Your task to perform on an android device: toggle improve location accuracy Image 0: 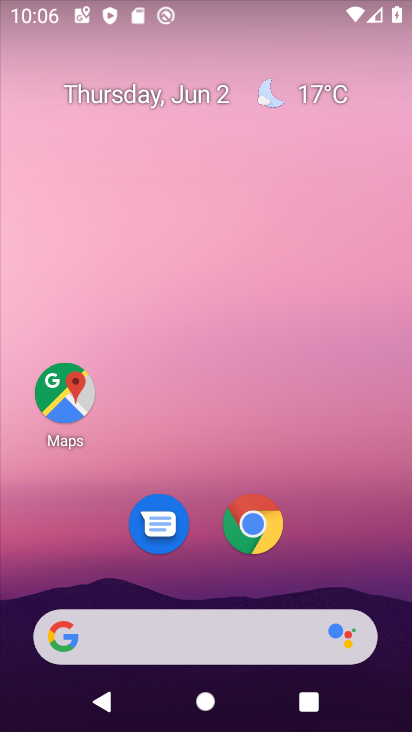
Step 0: drag from (237, 450) to (235, 0)
Your task to perform on an android device: toggle improve location accuracy Image 1: 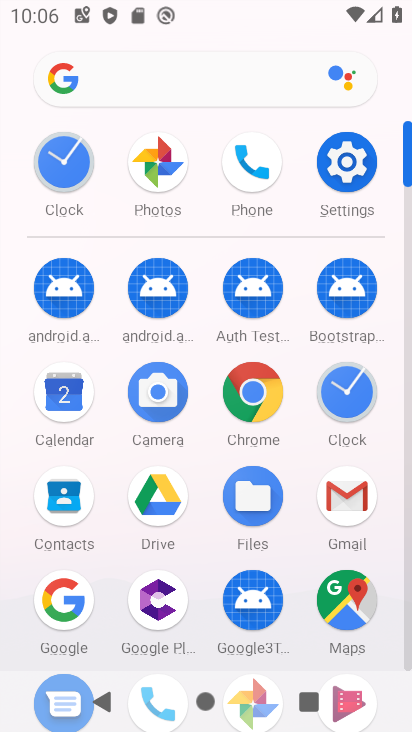
Step 1: click (355, 159)
Your task to perform on an android device: toggle improve location accuracy Image 2: 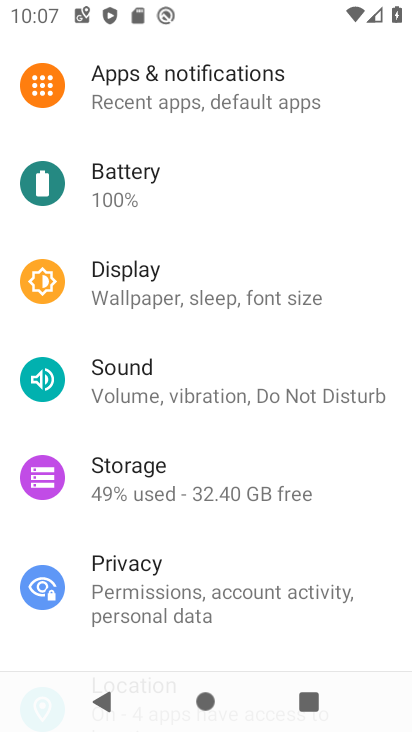
Step 2: drag from (252, 460) to (244, 130)
Your task to perform on an android device: toggle improve location accuracy Image 3: 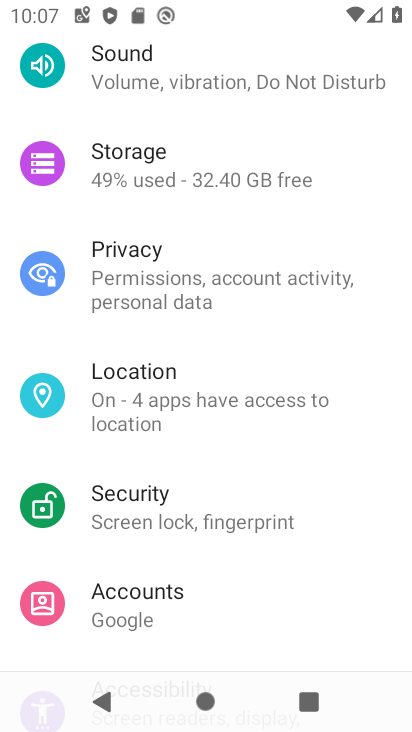
Step 3: click (220, 384)
Your task to perform on an android device: toggle improve location accuracy Image 4: 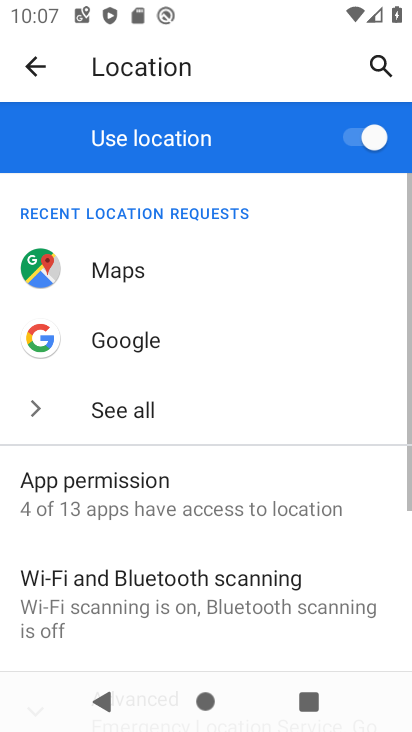
Step 4: drag from (268, 520) to (257, 80)
Your task to perform on an android device: toggle improve location accuracy Image 5: 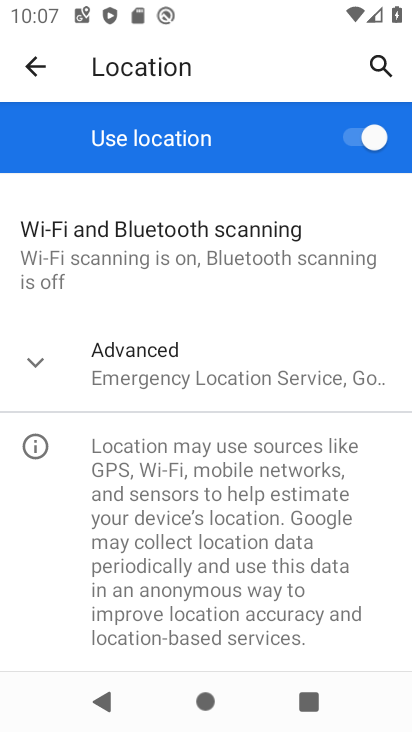
Step 5: click (36, 359)
Your task to perform on an android device: toggle improve location accuracy Image 6: 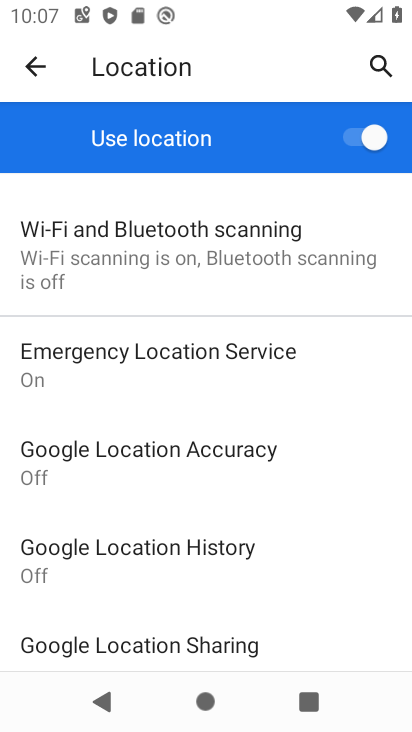
Step 6: click (262, 470)
Your task to perform on an android device: toggle improve location accuracy Image 7: 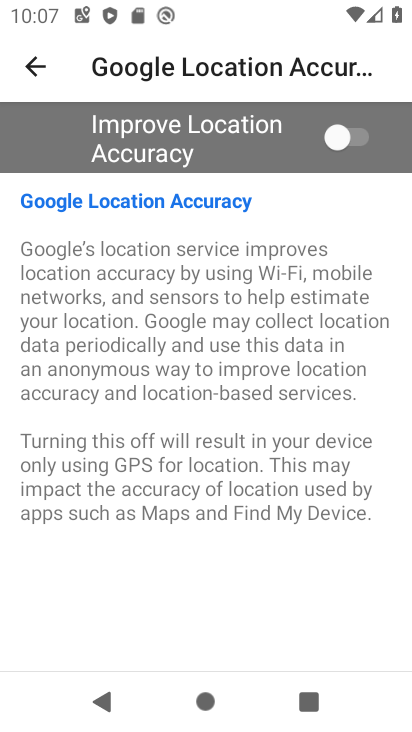
Step 7: click (351, 127)
Your task to perform on an android device: toggle improve location accuracy Image 8: 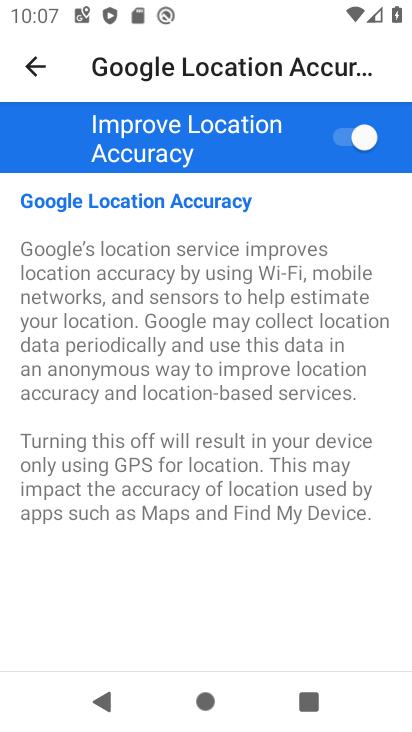
Step 8: task complete